Your task to perform on an android device: turn on translation in the chrome app Image 0: 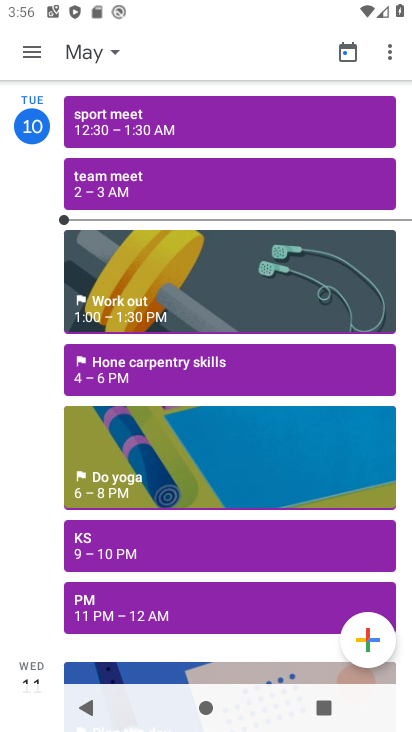
Step 0: press home button
Your task to perform on an android device: turn on translation in the chrome app Image 1: 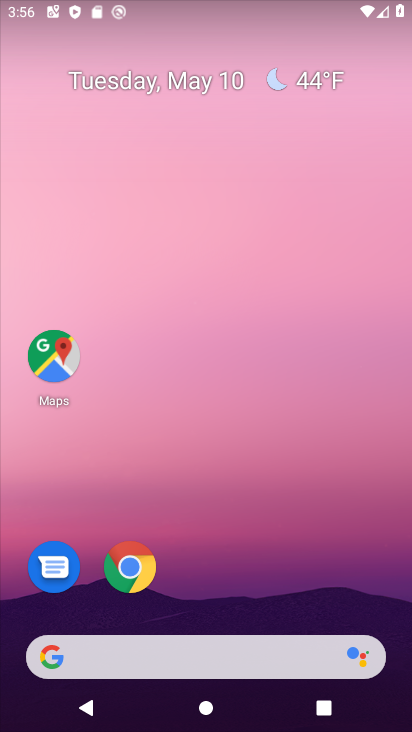
Step 1: click (126, 566)
Your task to perform on an android device: turn on translation in the chrome app Image 2: 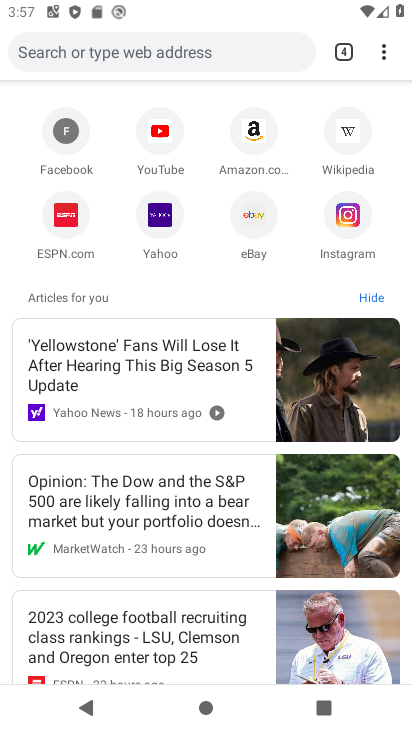
Step 2: click (382, 51)
Your task to perform on an android device: turn on translation in the chrome app Image 3: 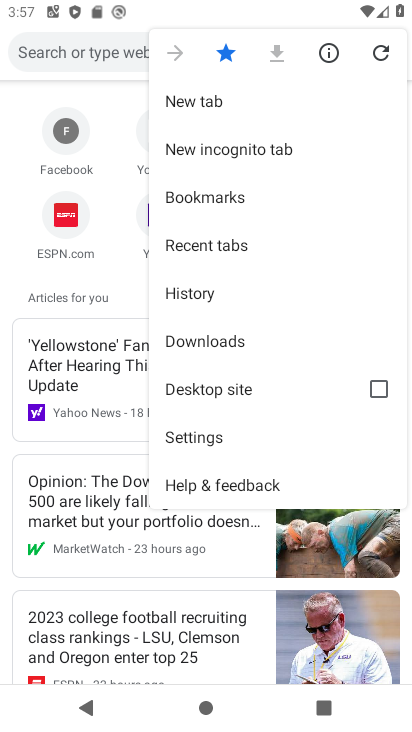
Step 3: click (190, 436)
Your task to perform on an android device: turn on translation in the chrome app Image 4: 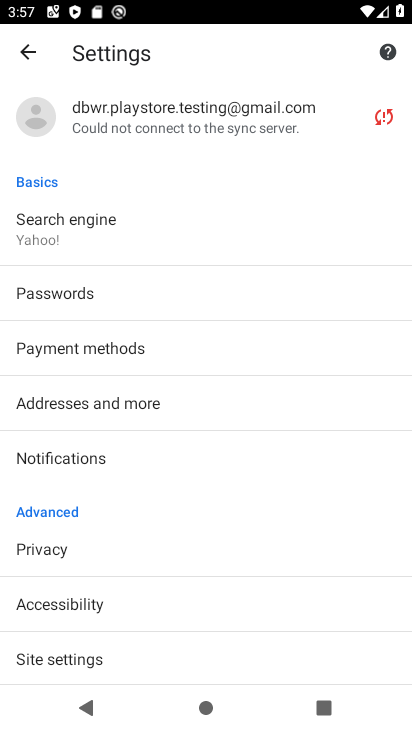
Step 4: drag from (101, 626) to (188, 462)
Your task to perform on an android device: turn on translation in the chrome app Image 5: 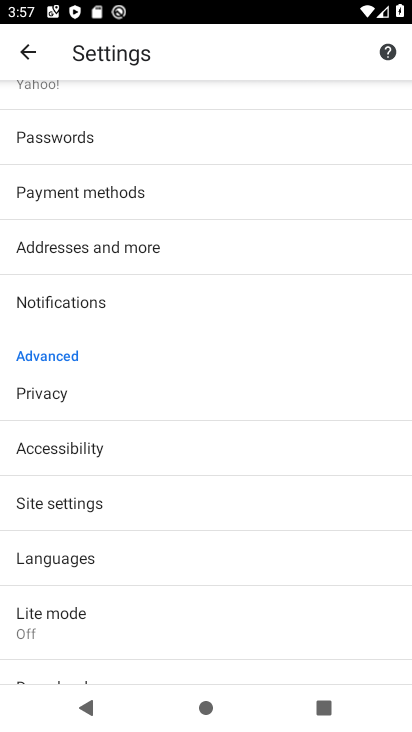
Step 5: click (74, 559)
Your task to perform on an android device: turn on translation in the chrome app Image 6: 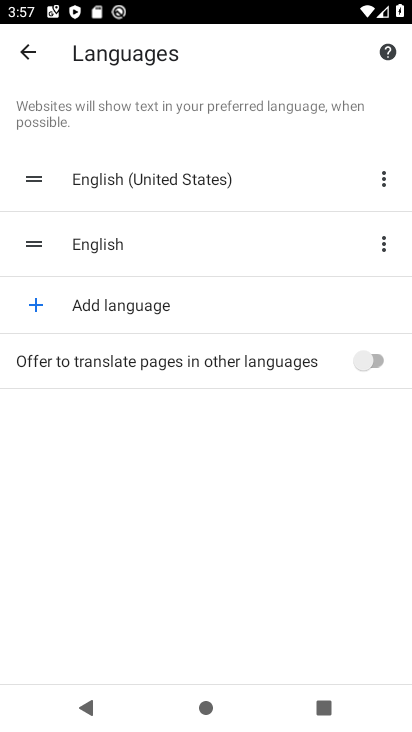
Step 6: click (367, 364)
Your task to perform on an android device: turn on translation in the chrome app Image 7: 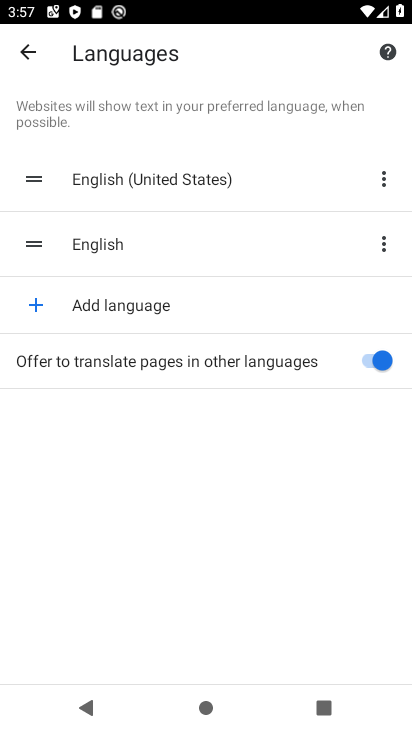
Step 7: task complete